Your task to perform on an android device: open the mobile data screen to see how much data has been used Image 0: 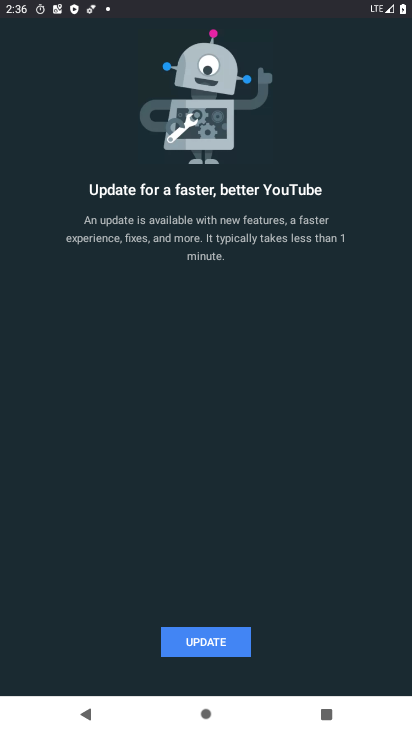
Step 0: press home button
Your task to perform on an android device: open the mobile data screen to see how much data has been used Image 1: 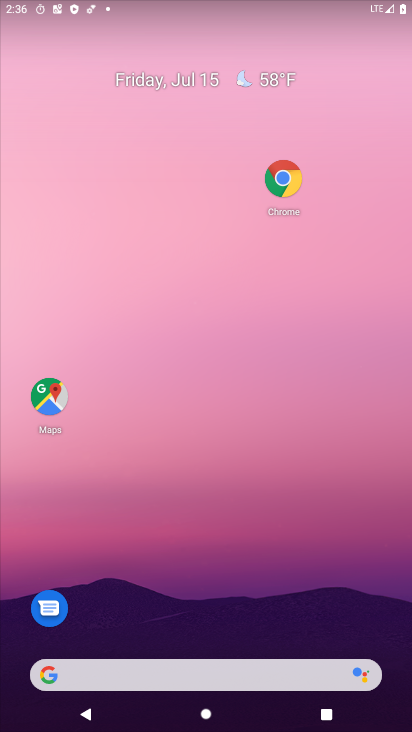
Step 1: drag from (115, 600) to (206, 79)
Your task to perform on an android device: open the mobile data screen to see how much data has been used Image 2: 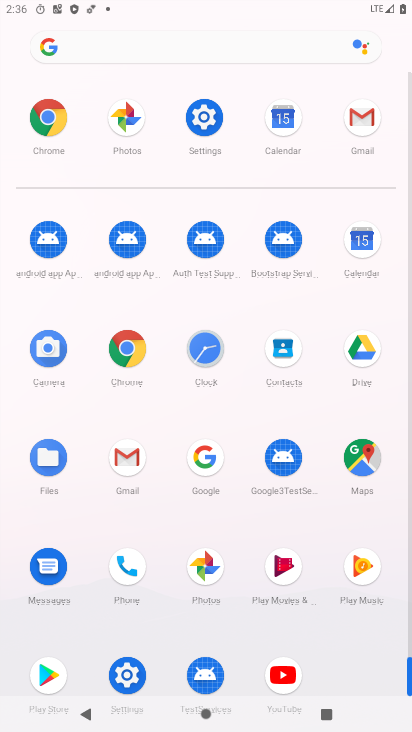
Step 2: drag from (174, 3) to (198, 479)
Your task to perform on an android device: open the mobile data screen to see how much data has been used Image 3: 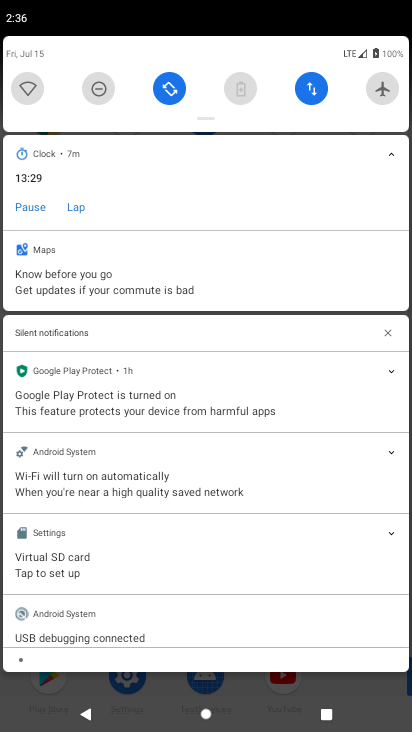
Step 3: click (301, 90)
Your task to perform on an android device: open the mobile data screen to see how much data has been used Image 4: 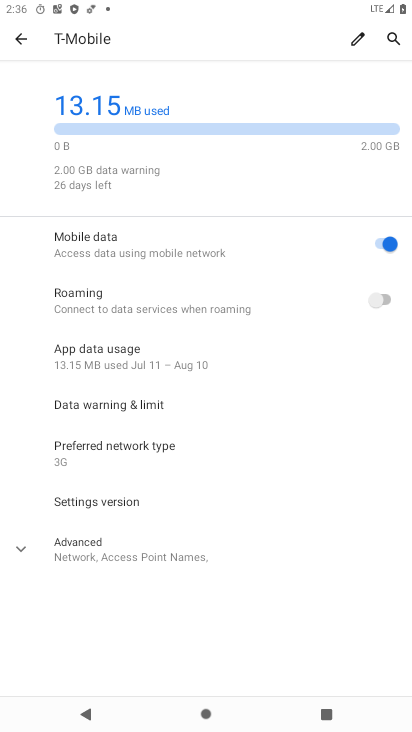
Step 4: task complete